Your task to perform on an android device: toggle airplane mode Image 0: 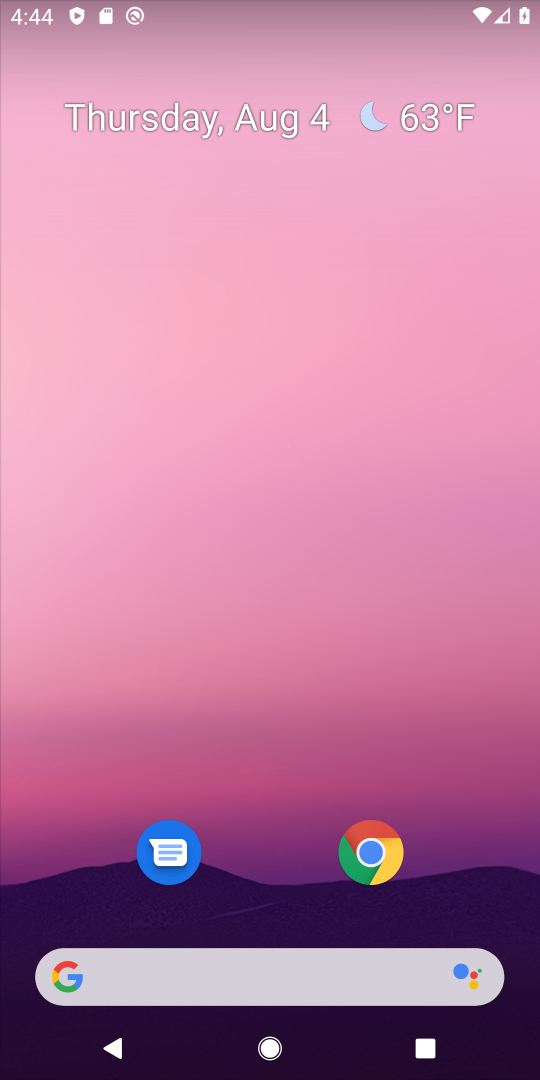
Step 0: drag from (263, 824) to (248, 238)
Your task to perform on an android device: toggle airplane mode Image 1: 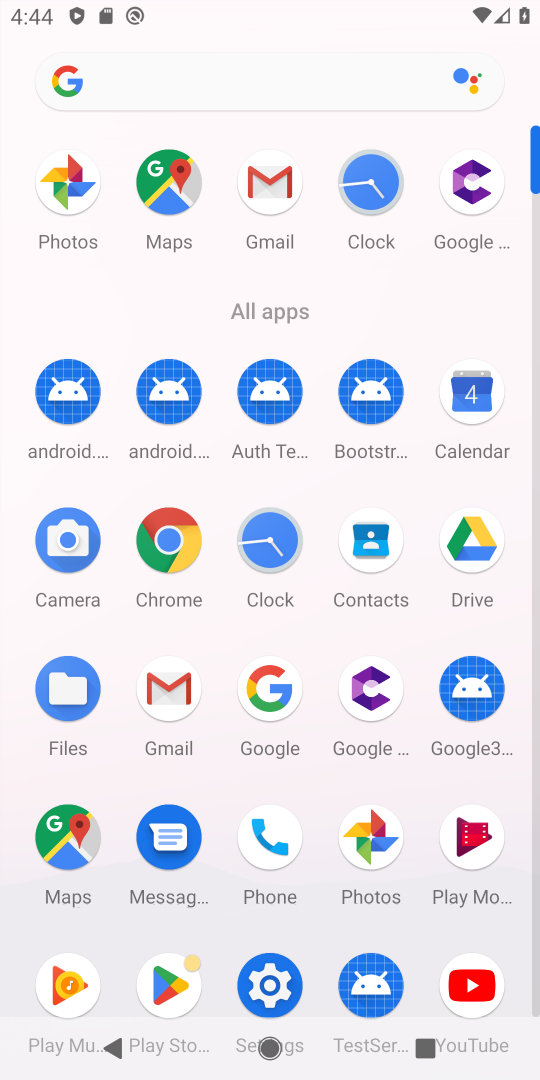
Step 1: click (290, 990)
Your task to perform on an android device: toggle airplane mode Image 2: 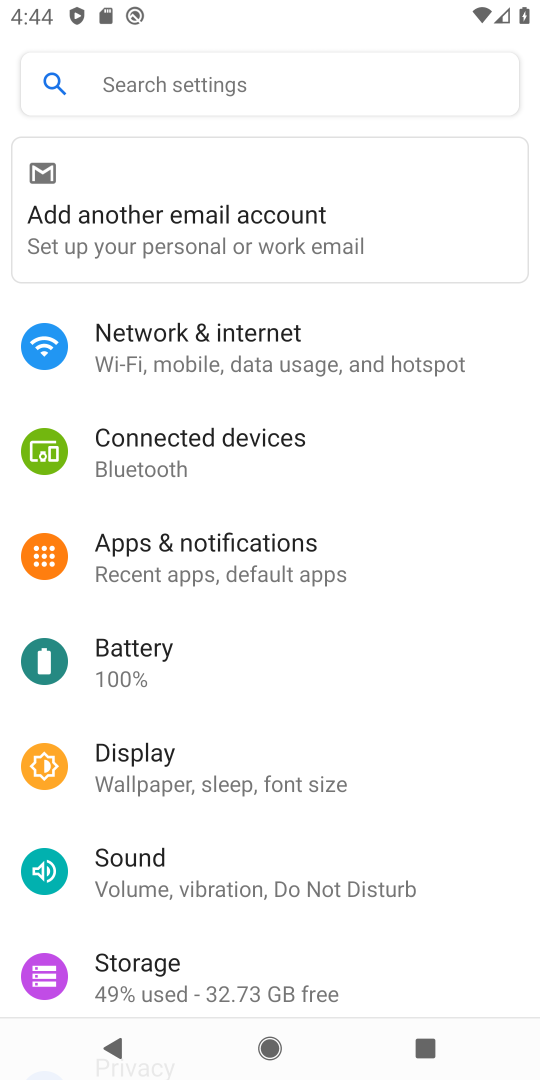
Step 2: click (178, 328)
Your task to perform on an android device: toggle airplane mode Image 3: 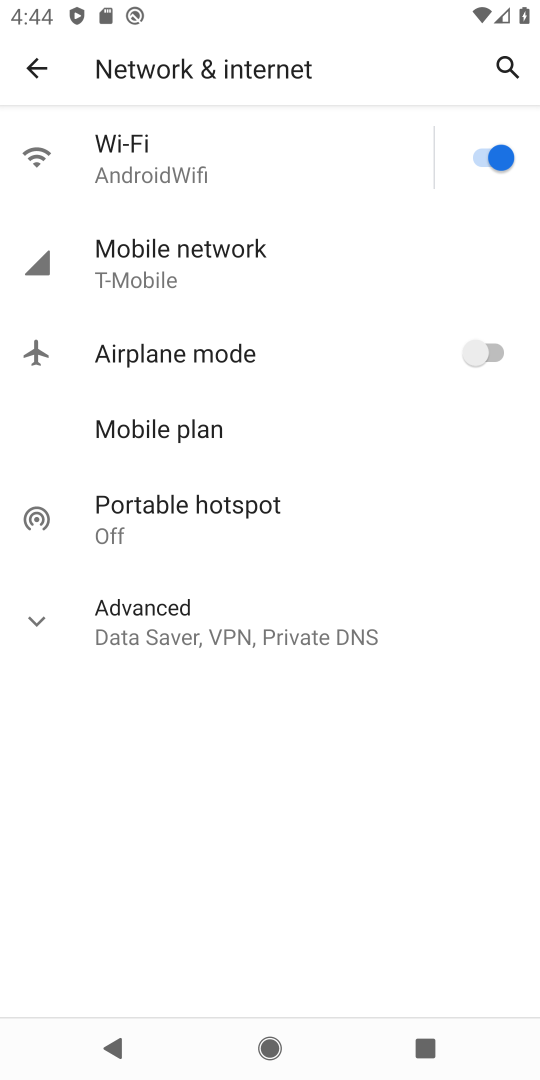
Step 3: click (484, 357)
Your task to perform on an android device: toggle airplane mode Image 4: 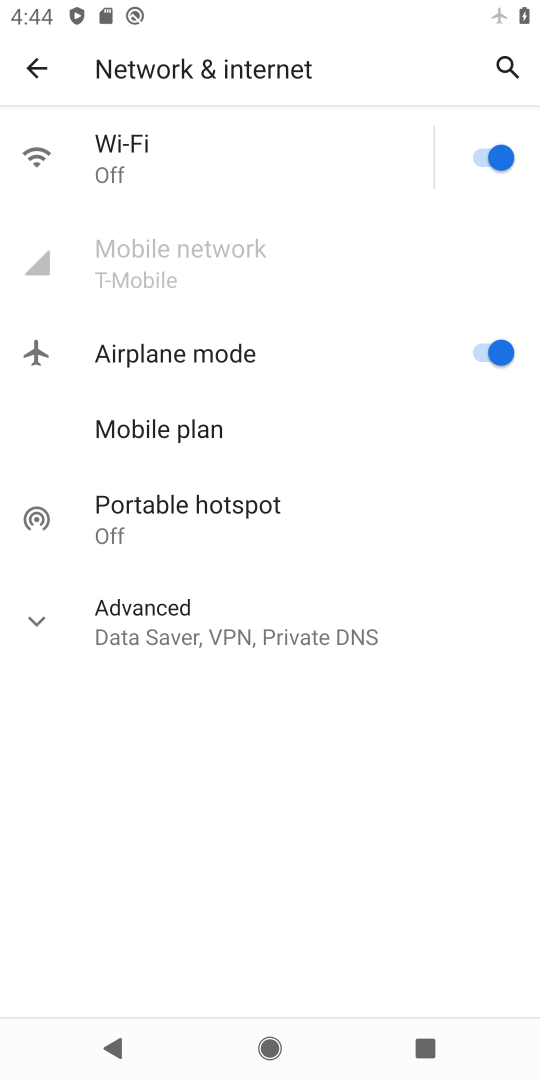
Step 4: task complete